Your task to perform on an android device: Search for good Chinese restaurants Image 0: 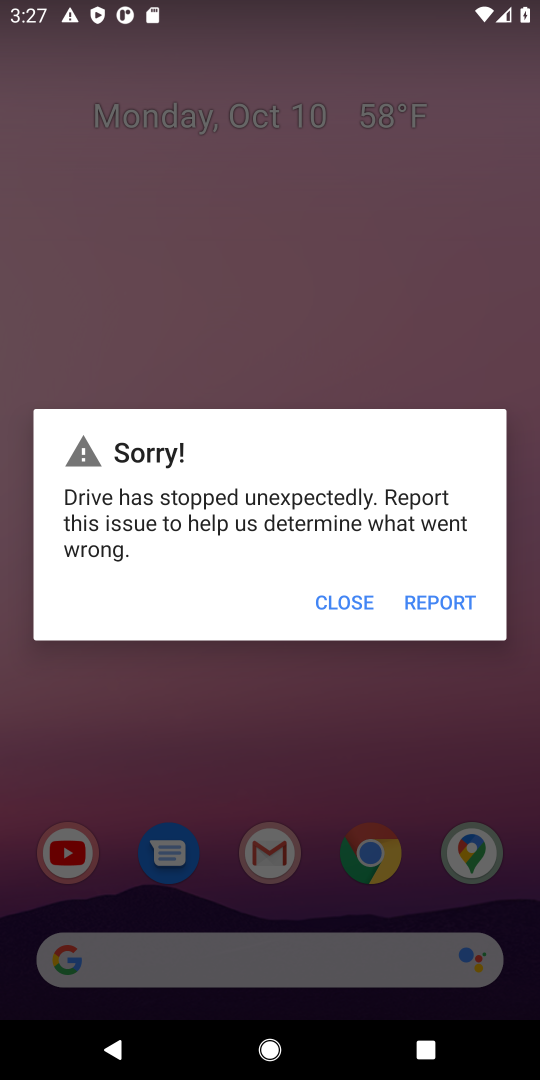
Step 0: click (312, 599)
Your task to perform on an android device: Search for good Chinese restaurants Image 1: 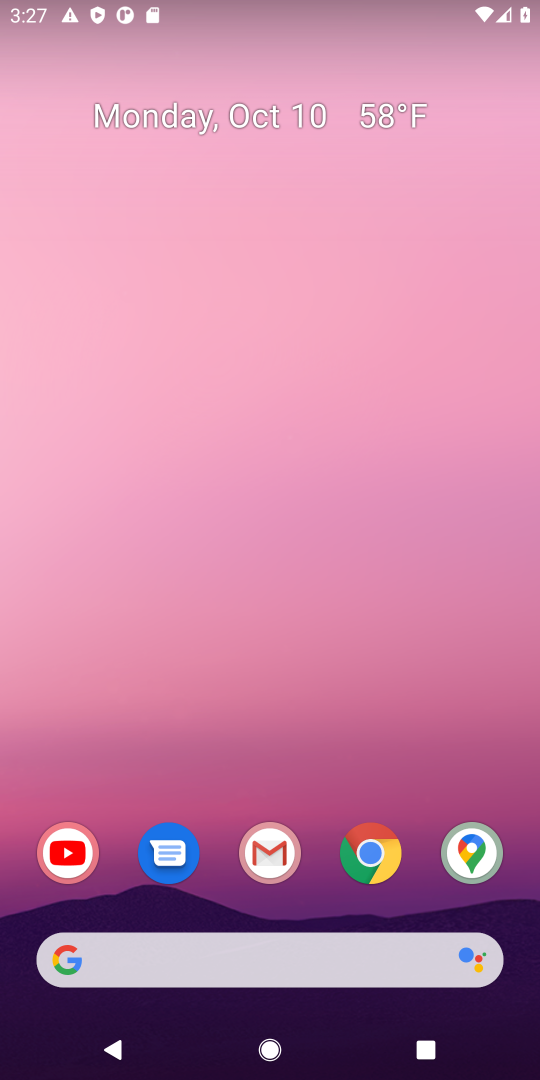
Step 1: click (130, 950)
Your task to perform on an android device: Search for good Chinese restaurants Image 2: 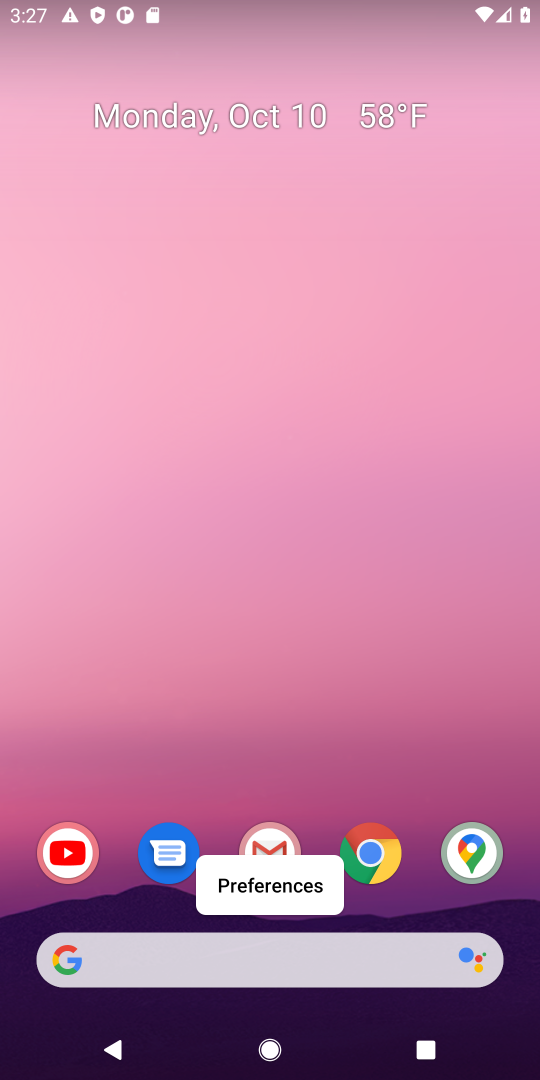
Step 2: click (153, 962)
Your task to perform on an android device: Search for good Chinese restaurants Image 3: 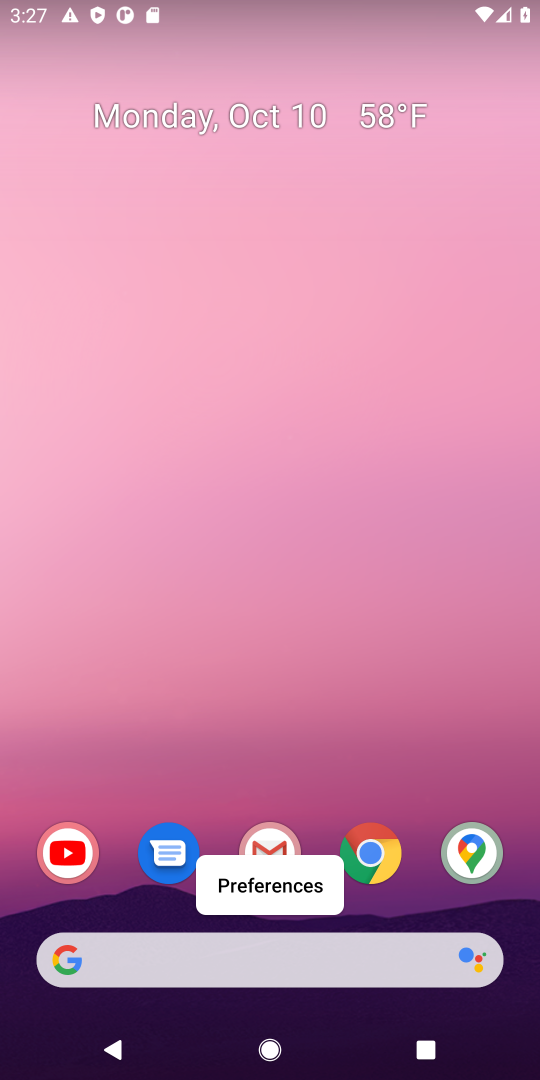
Step 3: click (232, 947)
Your task to perform on an android device: Search for good Chinese restaurants Image 4: 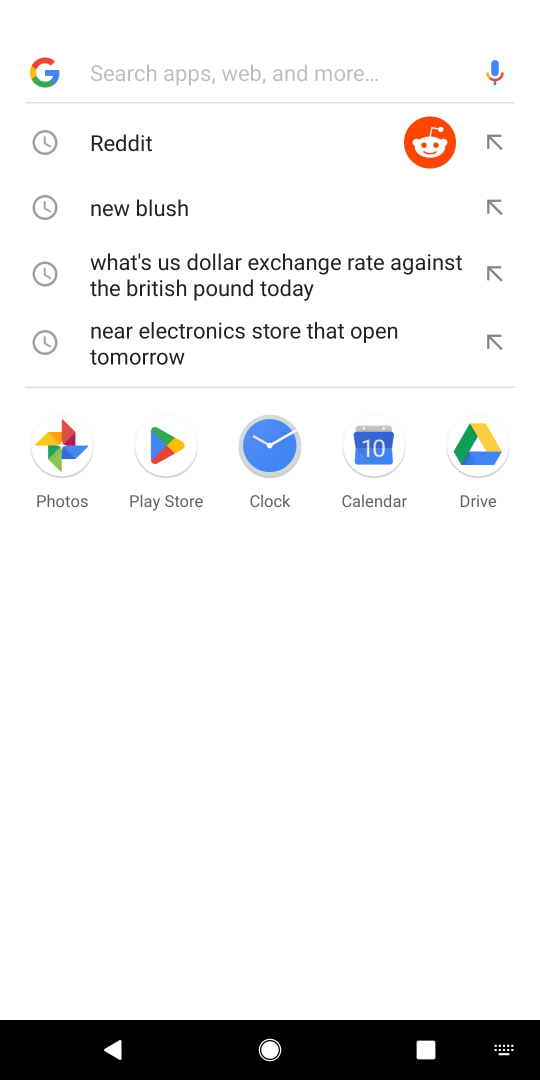
Step 4: click (139, 70)
Your task to perform on an android device: Search for good Chinese restaurants Image 5: 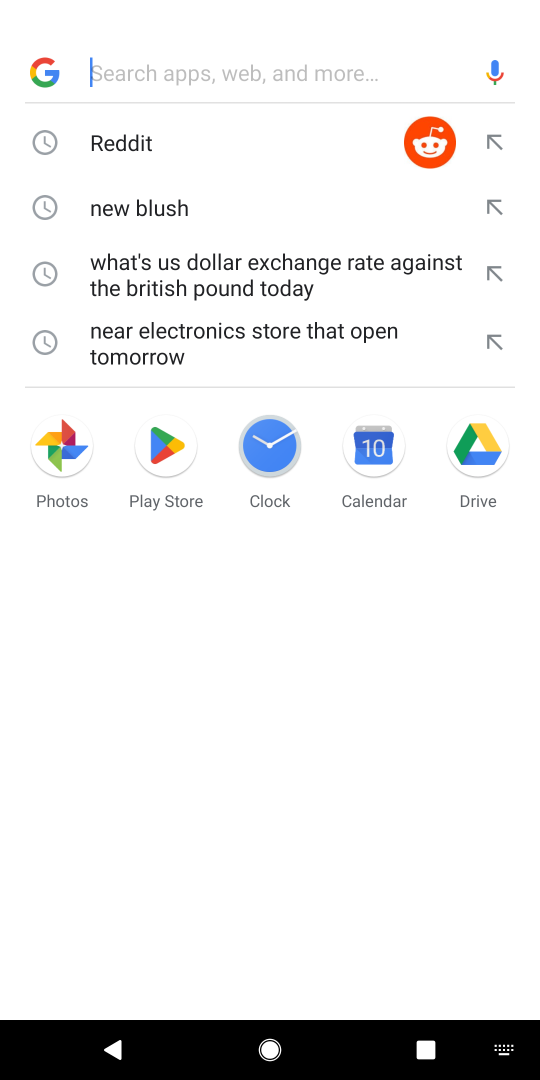
Step 5: type " good Chinese restaurants"
Your task to perform on an android device: Search for good Chinese restaurants Image 6: 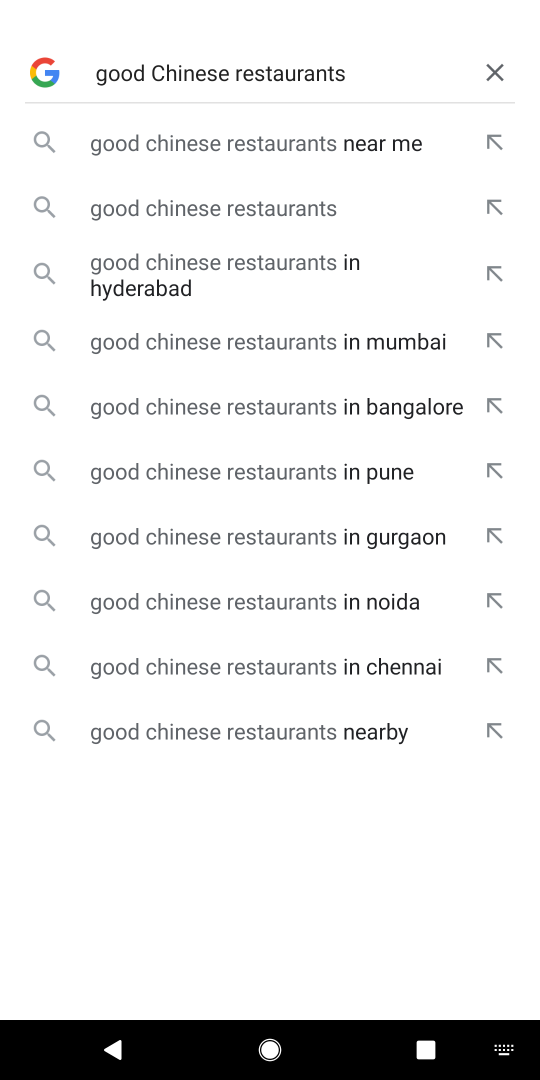
Step 6: click (235, 152)
Your task to perform on an android device: Search for good Chinese restaurants Image 7: 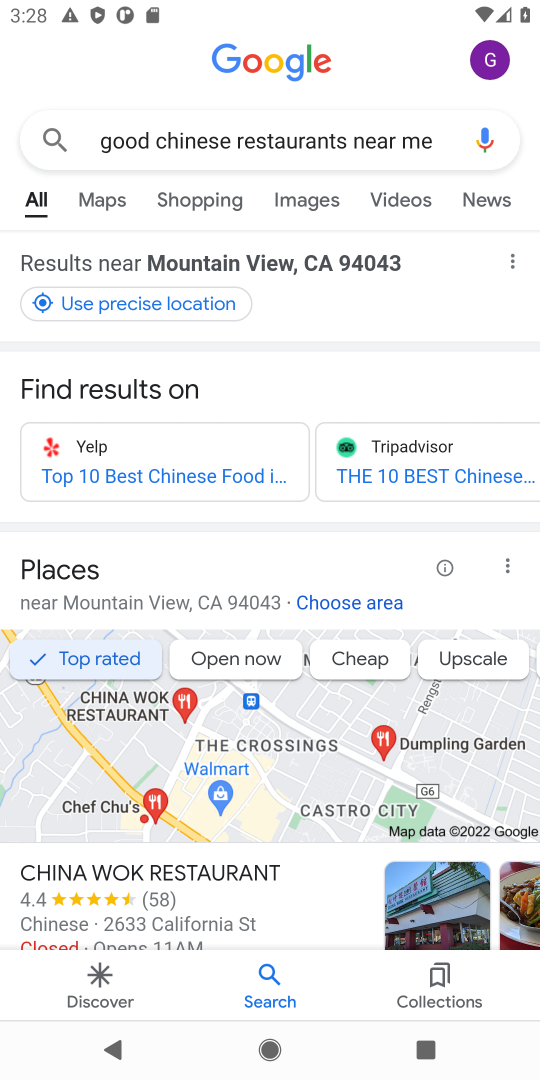
Step 7: task complete